Your task to perform on an android device: change the clock display to analog Image 0: 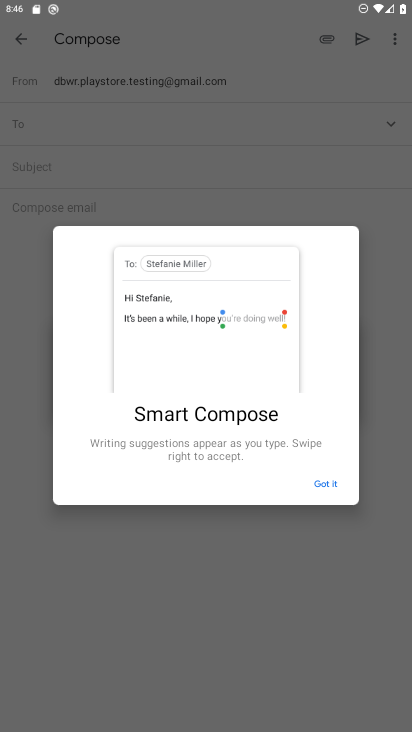
Step 0: press back button
Your task to perform on an android device: change the clock display to analog Image 1: 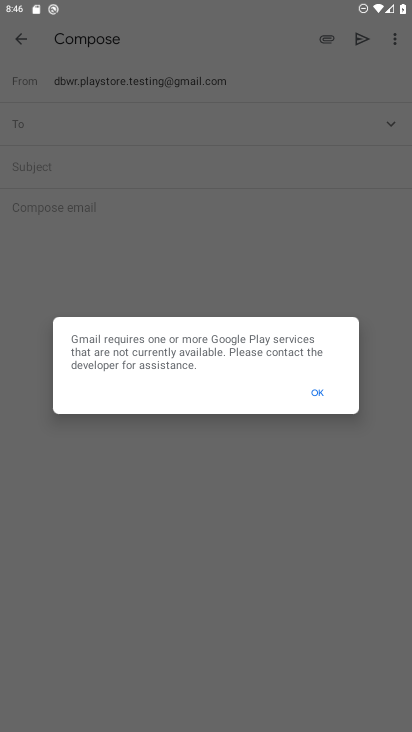
Step 1: press home button
Your task to perform on an android device: change the clock display to analog Image 2: 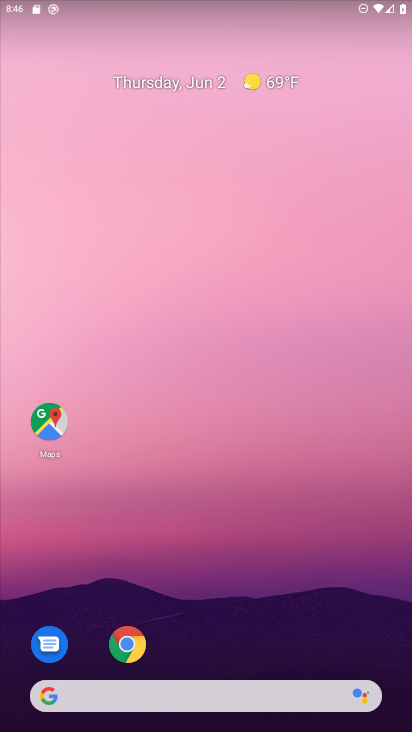
Step 2: drag from (247, 601) to (214, 16)
Your task to perform on an android device: change the clock display to analog Image 3: 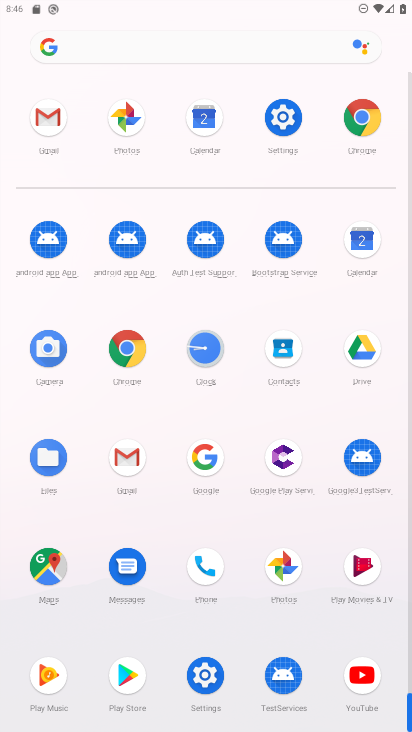
Step 3: click (208, 346)
Your task to perform on an android device: change the clock display to analog Image 4: 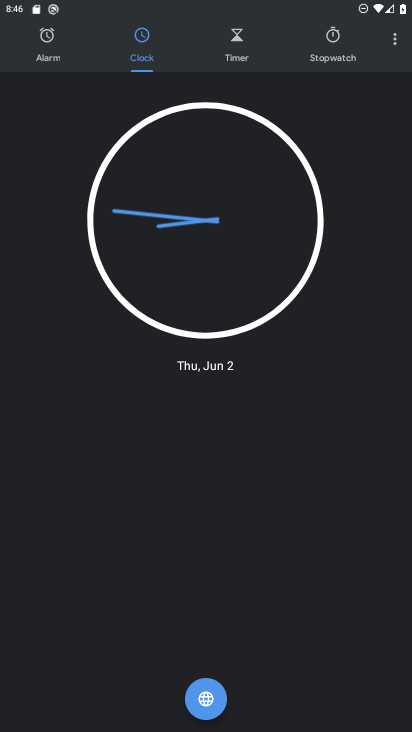
Step 4: drag from (395, 39) to (332, 71)
Your task to perform on an android device: change the clock display to analog Image 5: 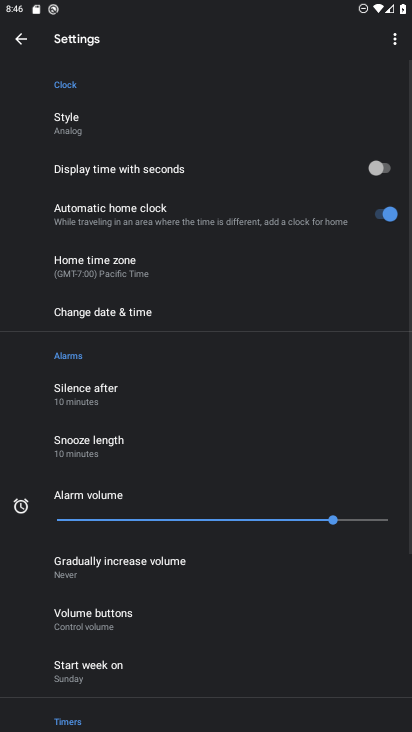
Step 5: click (130, 123)
Your task to perform on an android device: change the clock display to analog Image 6: 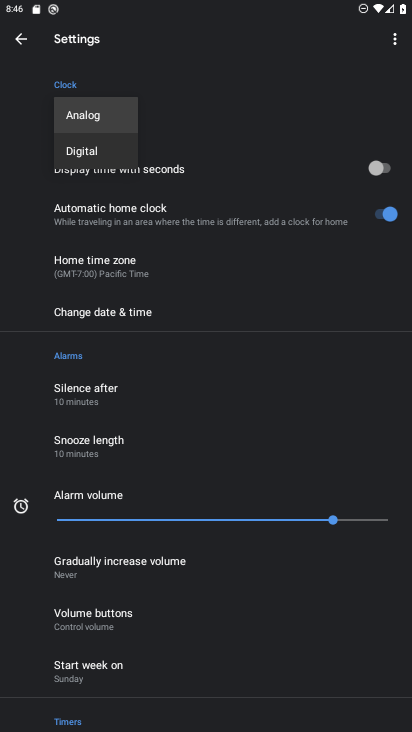
Step 6: click (98, 106)
Your task to perform on an android device: change the clock display to analog Image 7: 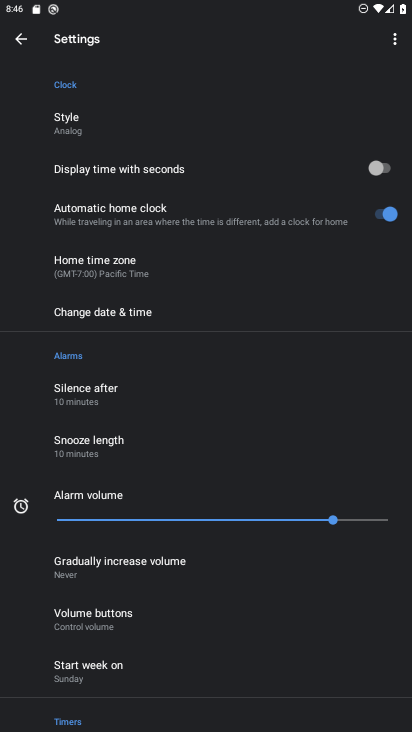
Step 7: task complete